Your task to perform on an android device: Go to network settings Image 0: 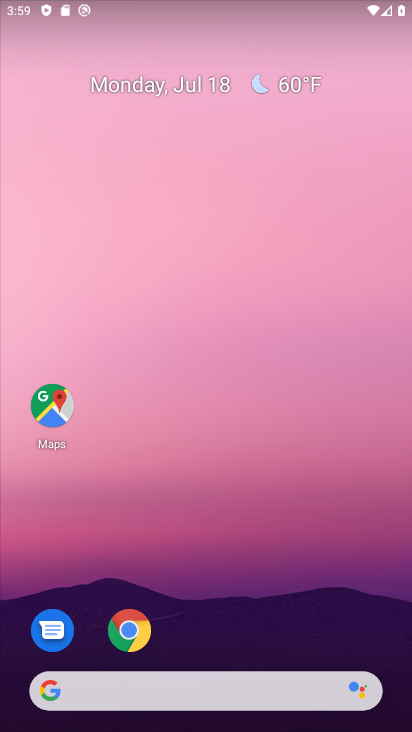
Step 0: press back button
Your task to perform on an android device: Go to network settings Image 1: 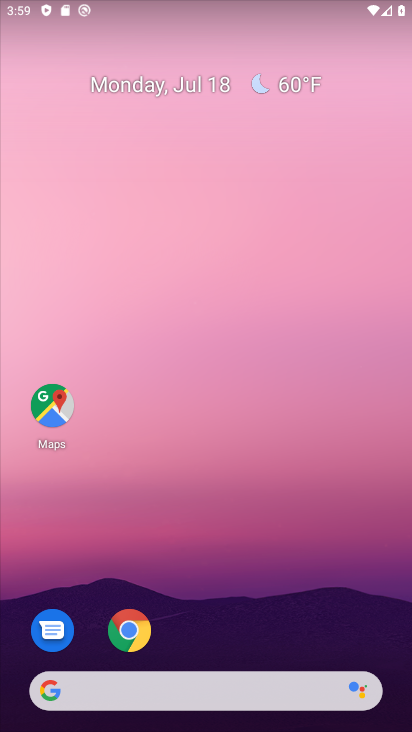
Step 1: drag from (207, 20) to (210, 56)
Your task to perform on an android device: Go to network settings Image 2: 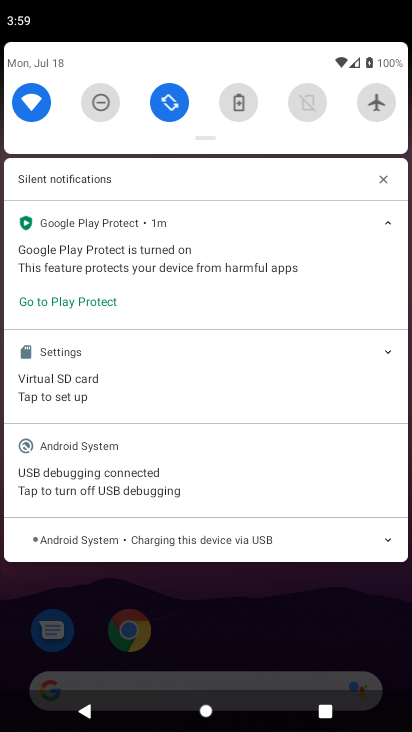
Step 2: drag from (250, 348) to (237, 157)
Your task to perform on an android device: Go to network settings Image 3: 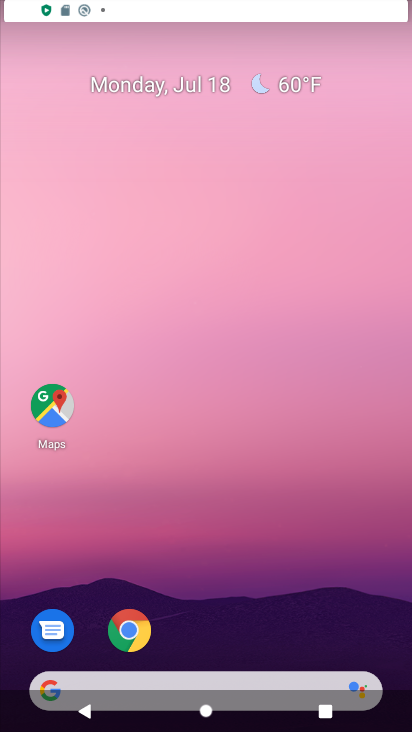
Step 3: drag from (184, 260) to (160, 2)
Your task to perform on an android device: Go to network settings Image 4: 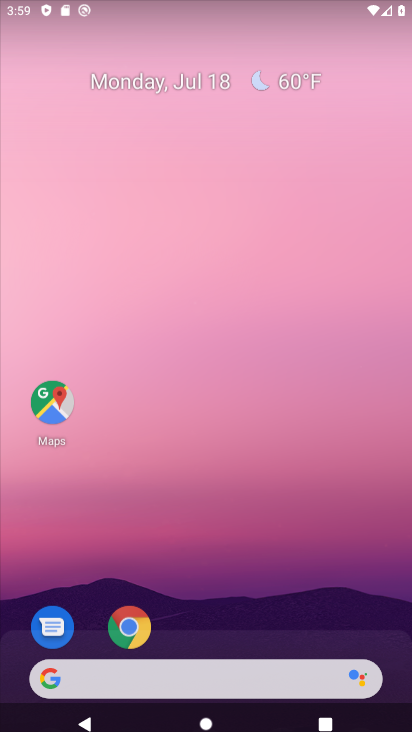
Step 4: drag from (197, 530) to (116, 106)
Your task to perform on an android device: Go to network settings Image 5: 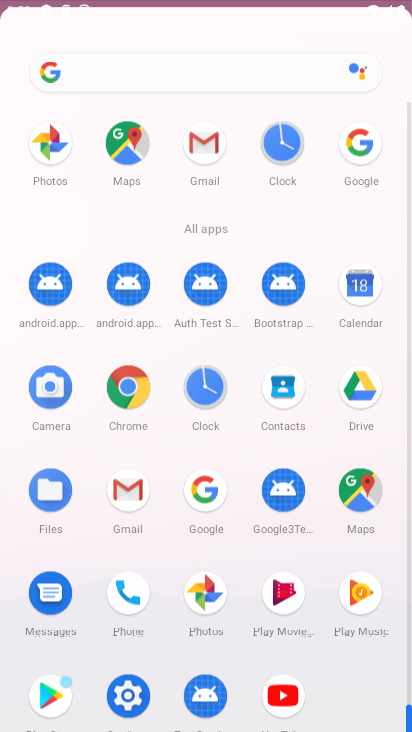
Step 5: drag from (282, 607) to (194, 171)
Your task to perform on an android device: Go to network settings Image 6: 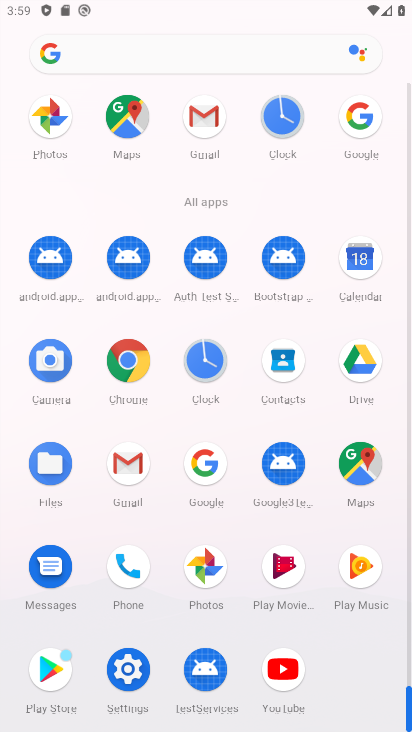
Step 6: click (114, 674)
Your task to perform on an android device: Go to network settings Image 7: 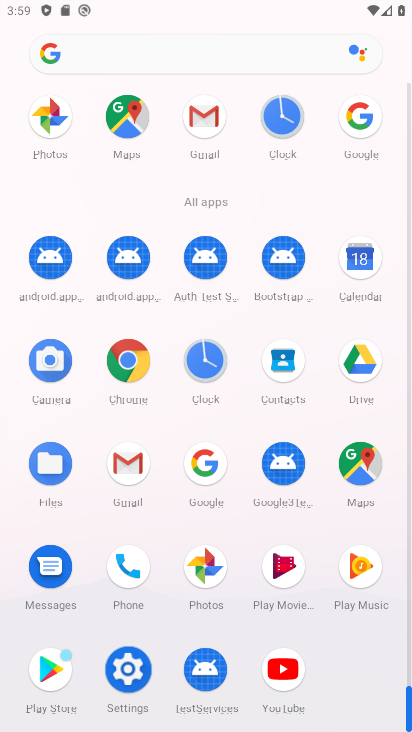
Step 7: click (114, 671)
Your task to perform on an android device: Go to network settings Image 8: 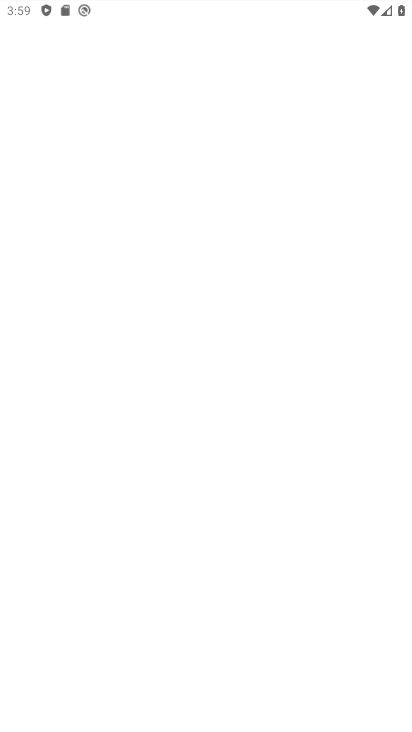
Step 8: click (120, 669)
Your task to perform on an android device: Go to network settings Image 9: 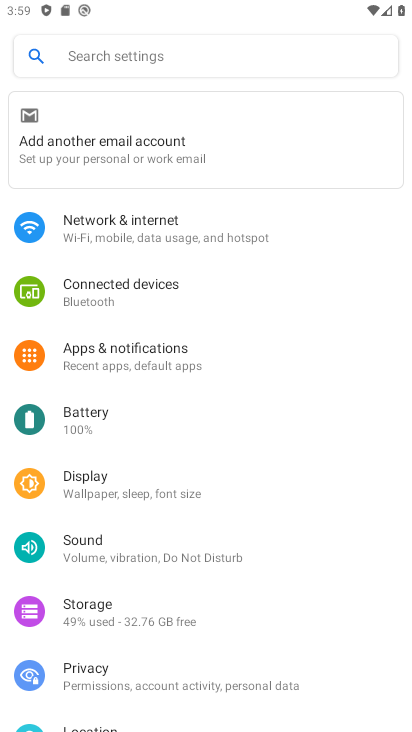
Step 9: click (140, 134)
Your task to perform on an android device: Go to network settings Image 10: 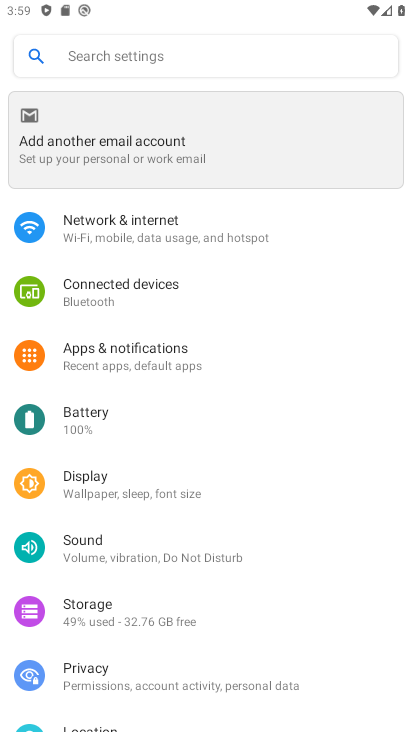
Step 10: click (149, 236)
Your task to perform on an android device: Go to network settings Image 11: 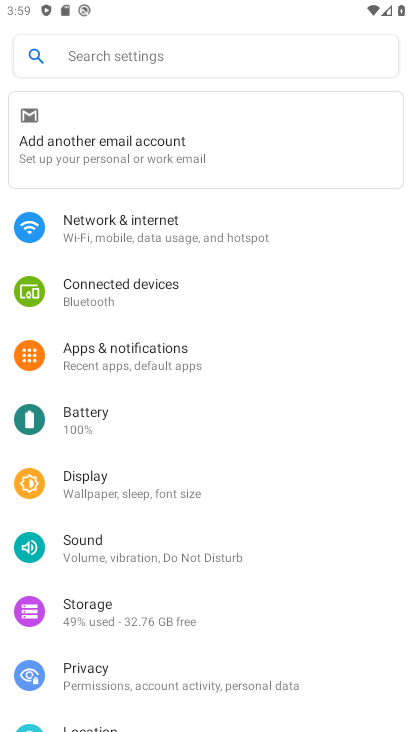
Step 11: click (149, 236)
Your task to perform on an android device: Go to network settings Image 12: 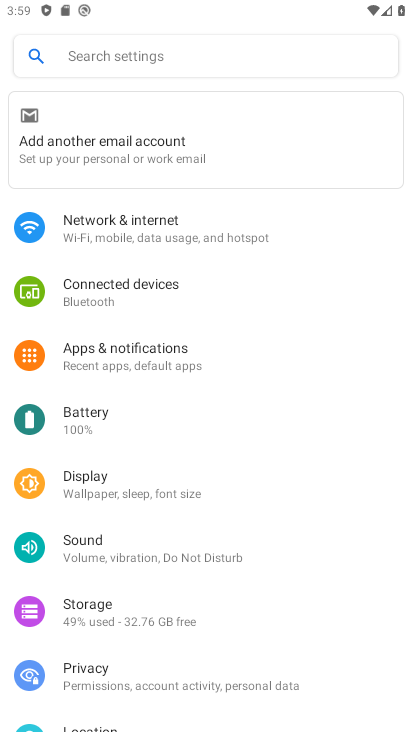
Step 12: click (156, 248)
Your task to perform on an android device: Go to network settings Image 13: 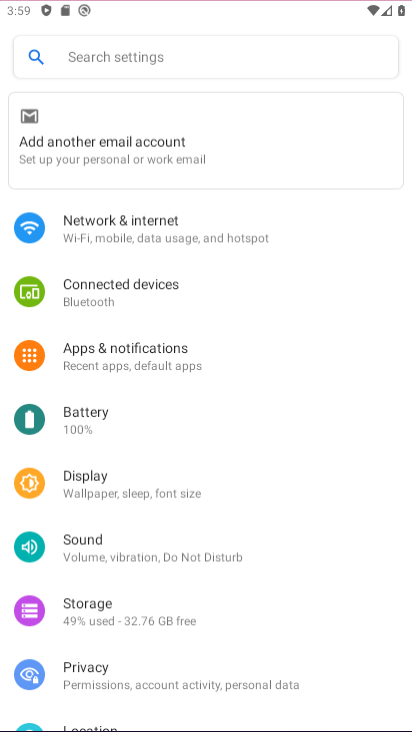
Step 13: click (160, 235)
Your task to perform on an android device: Go to network settings Image 14: 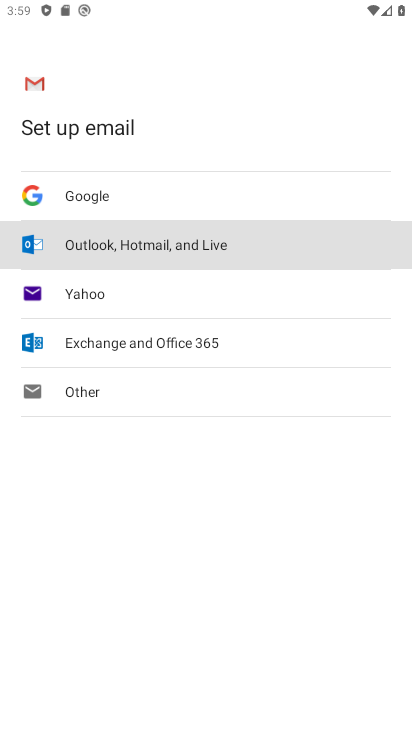
Step 14: click (156, 228)
Your task to perform on an android device: Go to network settings Image 15: 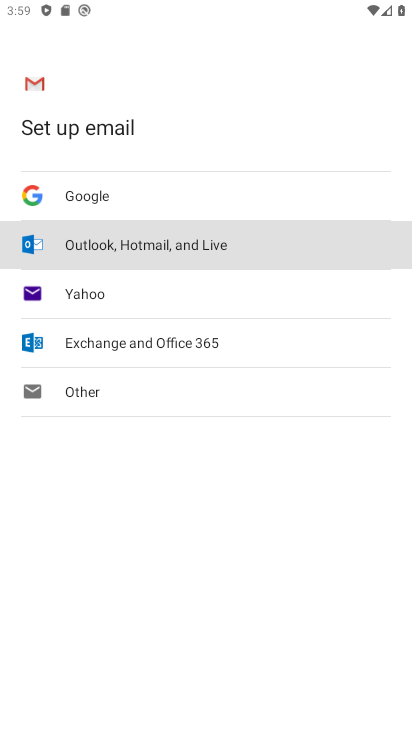
Step 15: click (159, 227)
Your task to perform on an android device: Go to network settings Image 16: 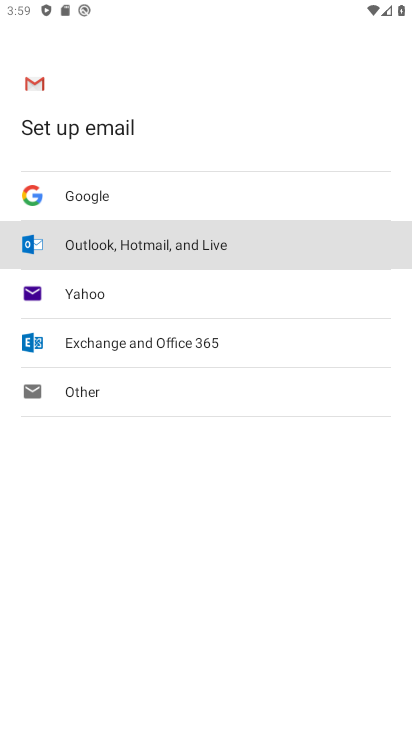
Step 16: click (149, 235)
Your task to perform on an android device: Go to network settings Image 17: 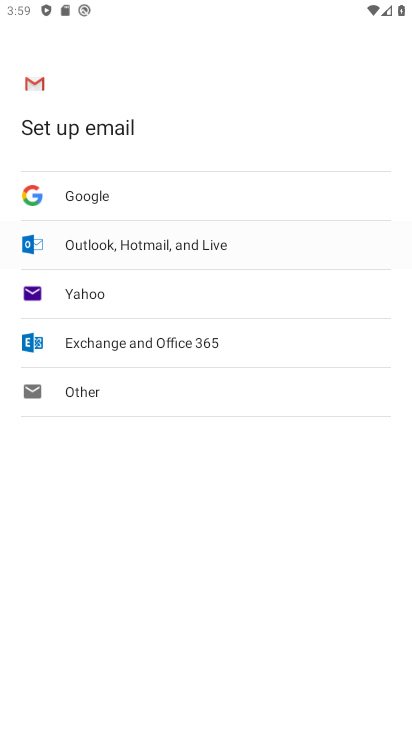
Step 17: click (131, 237)
Your task to perform on an android device: Go to network settings Image 18: 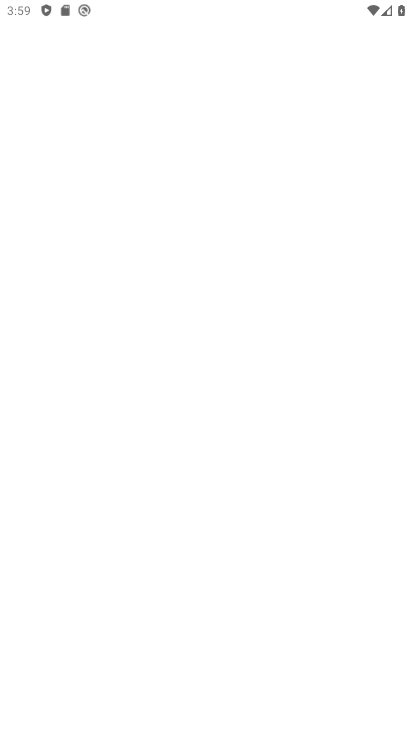
Step 18: click (88, 217)
Your task to perform on an android device: Go to network settings Image 19: 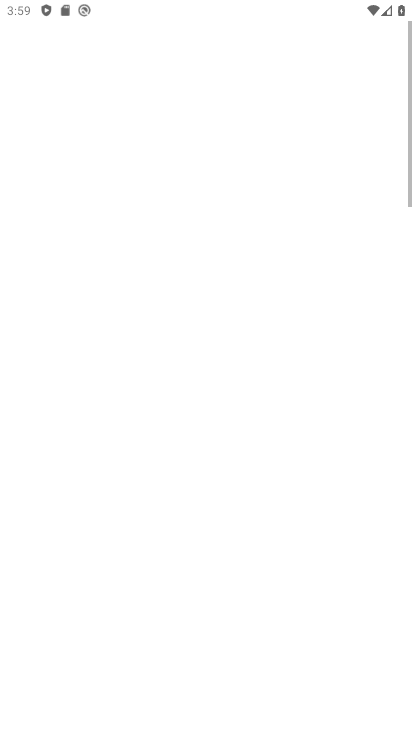
Step 19: press back button
Your task to perform on an android device: Go to network settings Image 20: 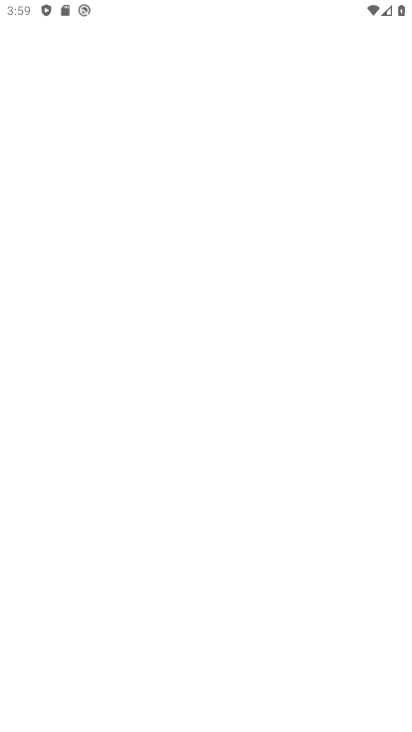
Step 20: press back button
Your task to perform on an android device: Go to network settings Image 21: 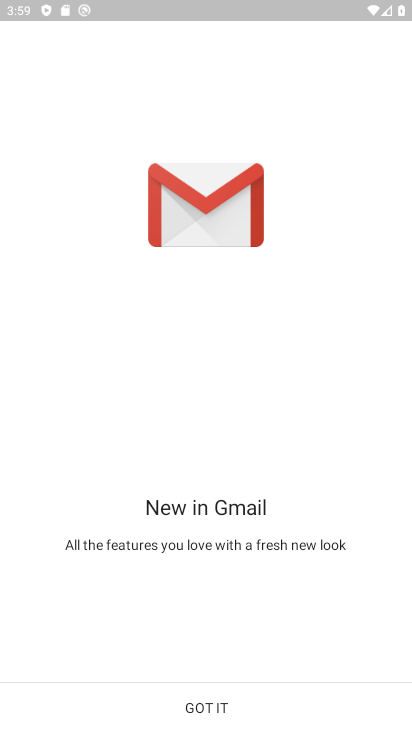
Step 21: press home button
Your task to perform on an android device: Go to network settings Image 22: 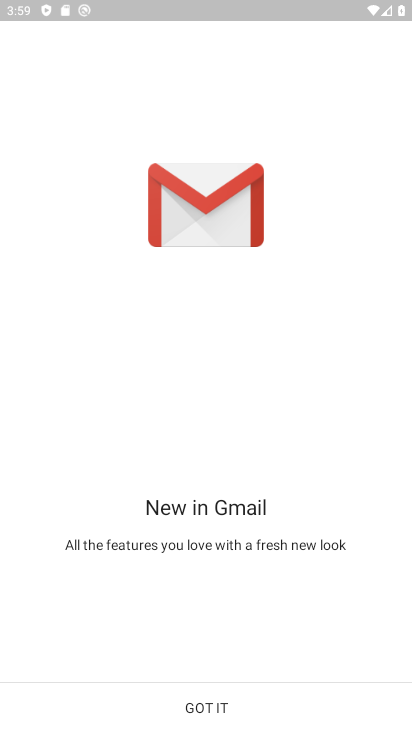
Step 22: press home button
Your task to perform on an android device: Go to network settings Image 23: 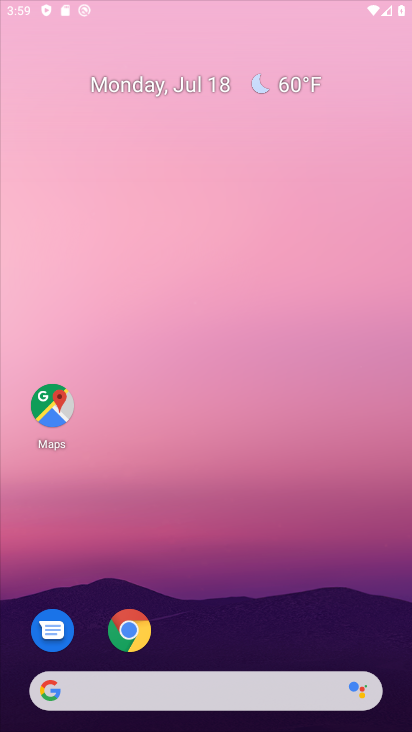
Step 23: press home button
Your task to perform on an android device: Go to network settings Image 24: 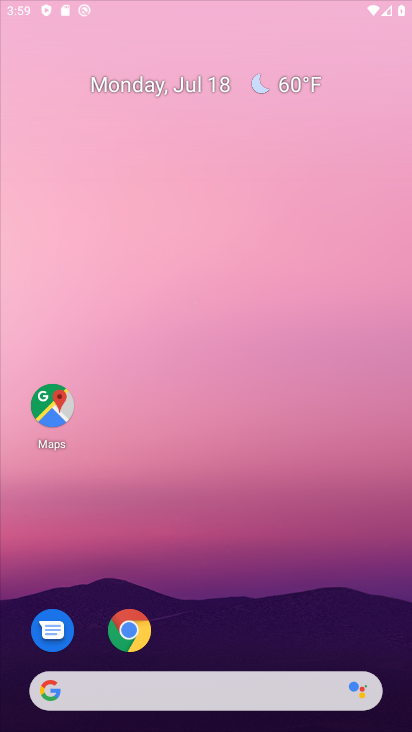
Step 24: drag from (171, 201) to (165, 126)
Your task to perform on an android device: Go to network settings Image 25: 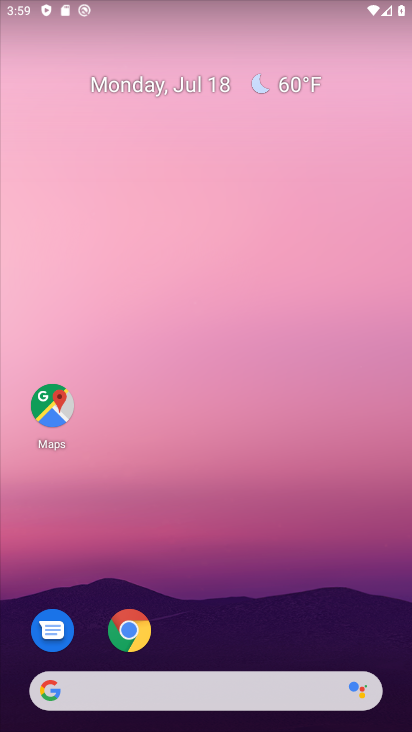
Step 25: drag from (229, 634) to (137, 84)
Your task to perform on an android device: Go to network settings Image 26: 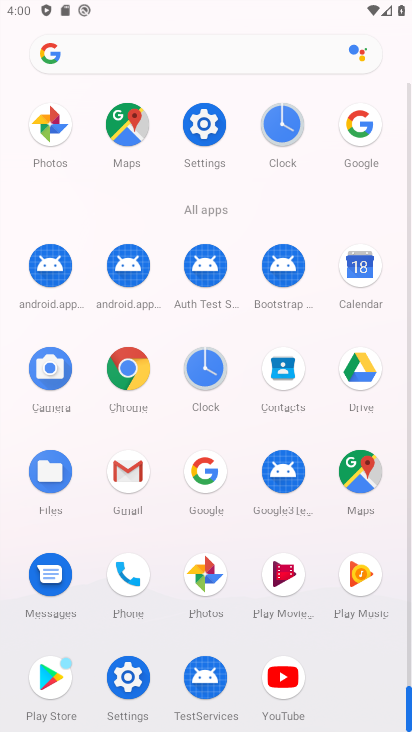
Step 26: click (199, 154)
Your task to perform on an android device: Go to network settings Image 27: 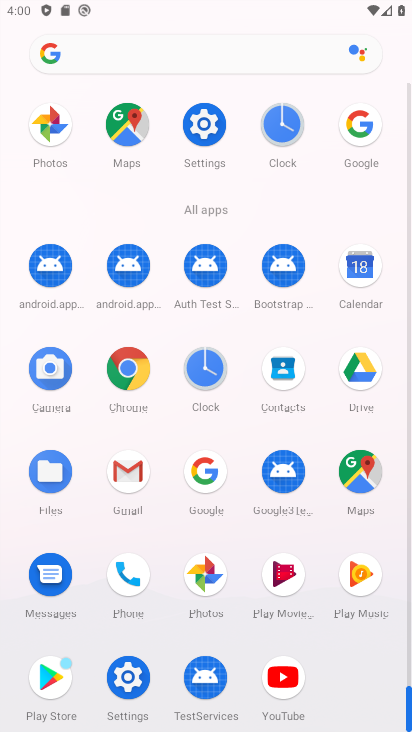
Step 27: click (199, 154)
Your task to perform on an android device: Go to network settings Image 28: 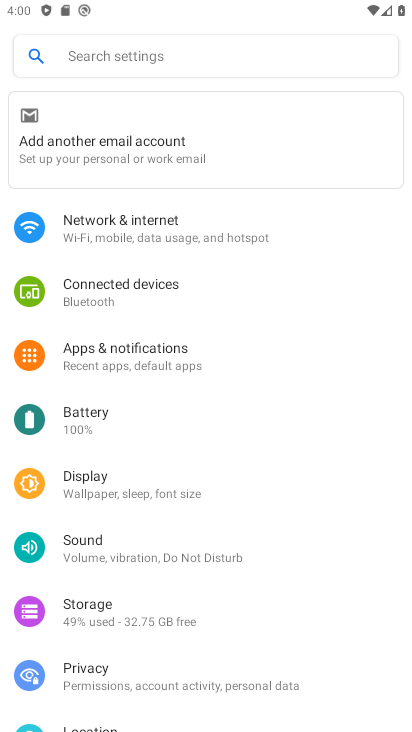
Step 28: click (128, 245)
Your task to perform on an android device: Go to network settings Image 29: 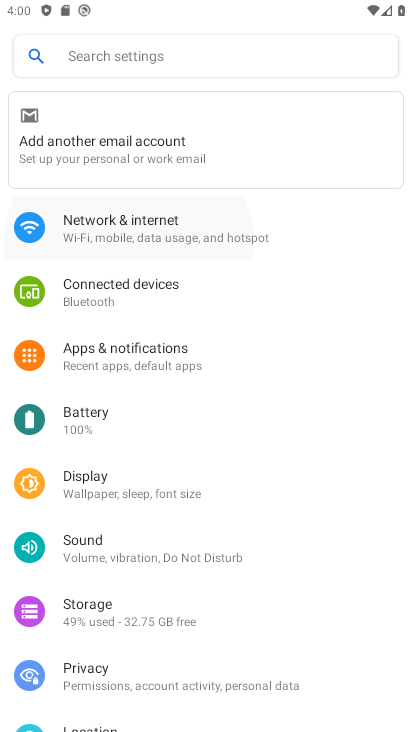
Step 29: click (130, 241)
Your task to perform on an android device: Go to network settings Image 30: 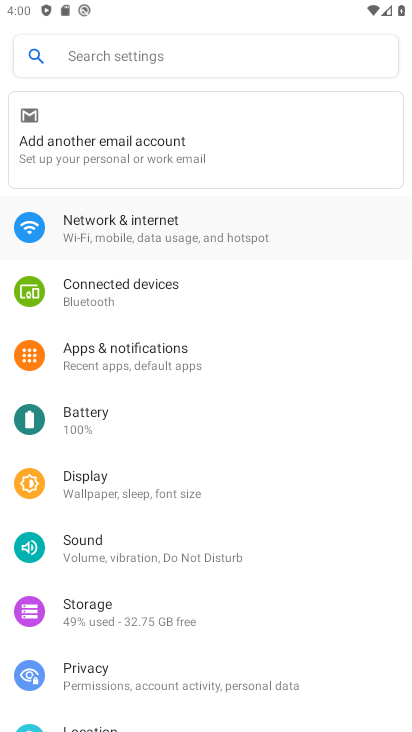
Step 30: click (131, 239)
Your task to perform on an android device: Go to network settings Image 31: 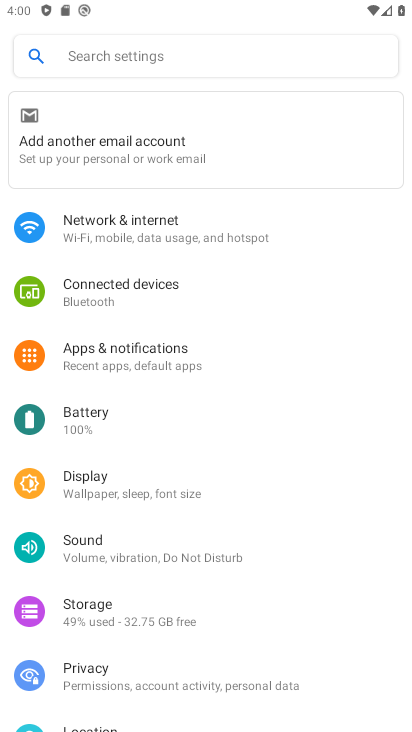
Step 31: click (137, 231)
Your task to perform on an android device: Go to network settings Image 32: 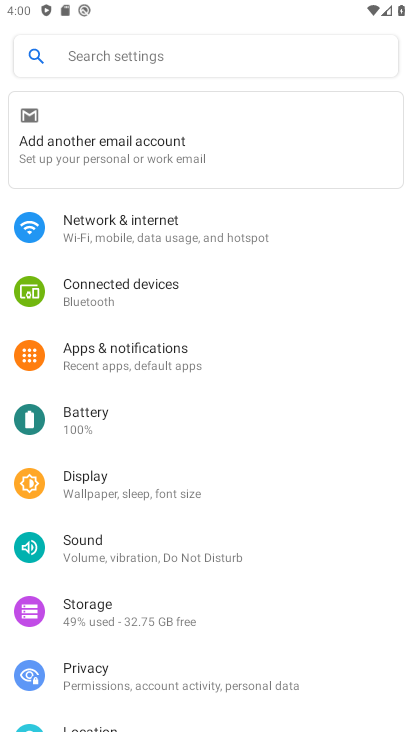
Step 32: click (137, 231)
Your task to perform on an android device: Go to network settings Image 33: 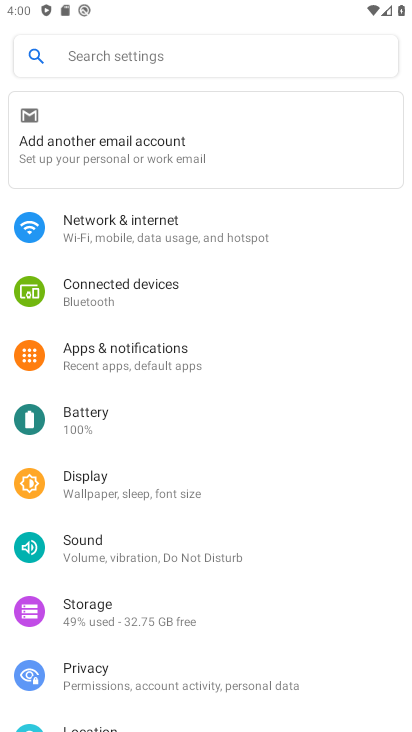
Step 33: click (137, 231)
Your task to perform on an android device: Go to network settings Image 34: 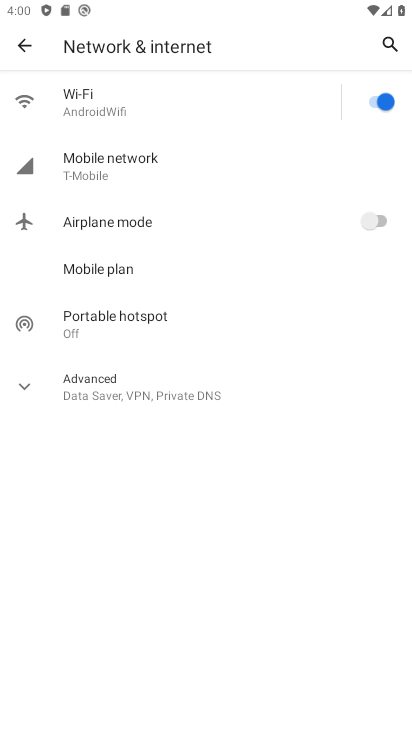
Step 34: task complete